Your task to perform on an android device: turn off priority inbox in the gmail app Image 0: 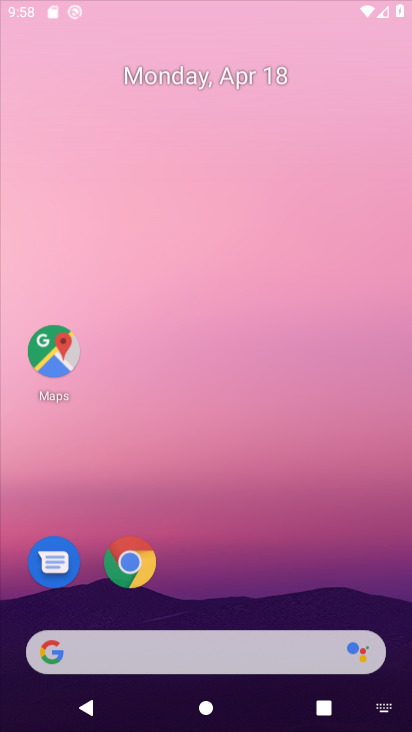
Step 0: click (279, 137)
Your task to perform on an android device: turn off priority inbox in the gmail app Image 1: 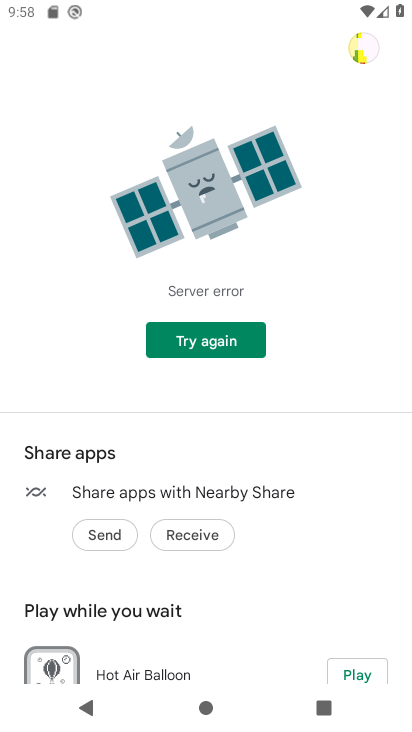
Step 1: drag from (212, 546) to (293, 220)
Your task to perform on an android device: turn off priority inbox in the gmail app Image 2: 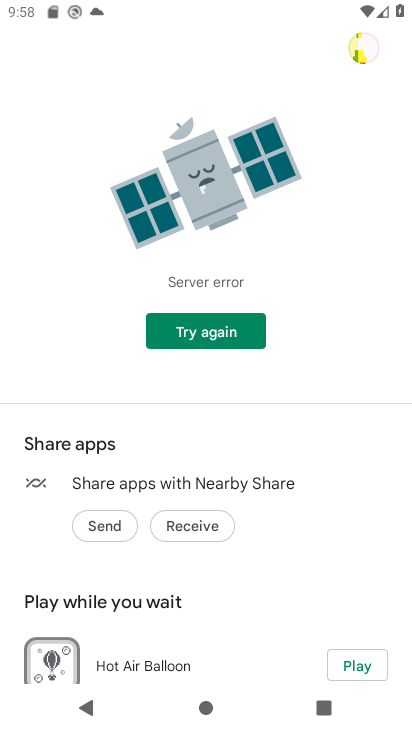
Step 2: press home button
Your task to perform on an android device: turn off priority inbox in the gmail app Image 3: 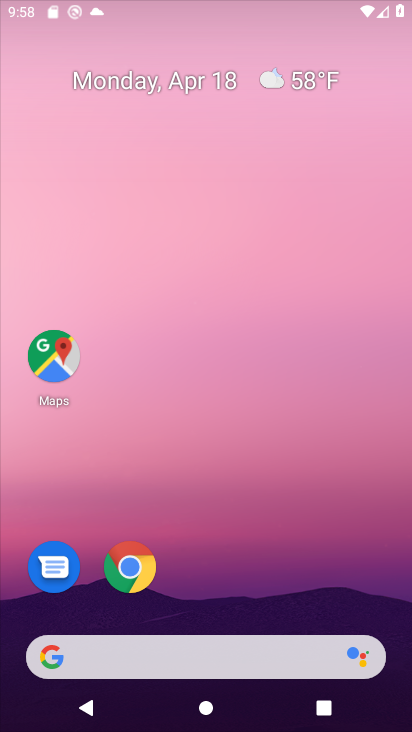
Step 3: drag from (266, 354) to (343, 125)
Your task to perform on an android device: turn off priority inbox in the gmail app Image 4: 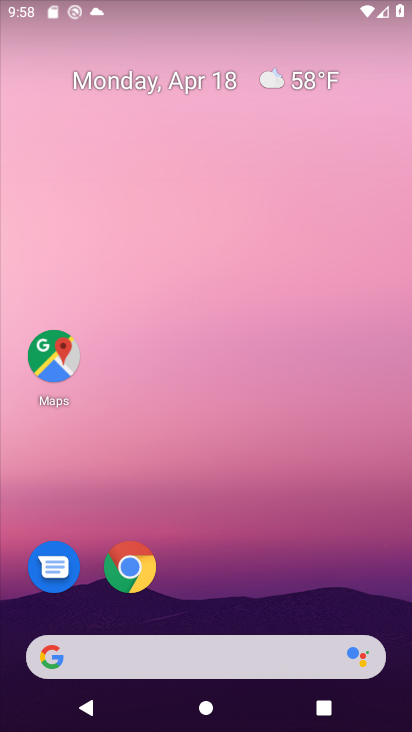
Step 4: drag from (192, 604) to (272, 124)
Your task to perform on an android device: turn off priority inbox in the gmail app Image 5: 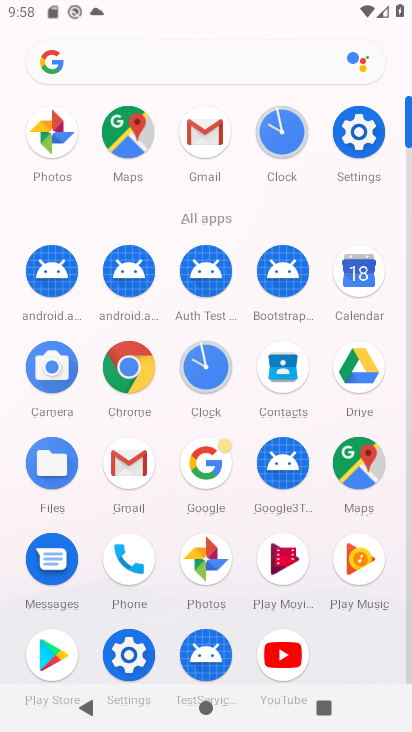
Step 5: click (135, 453)
Your task to perform on an android device: turn off priority inbox in the gmail app Image 6: 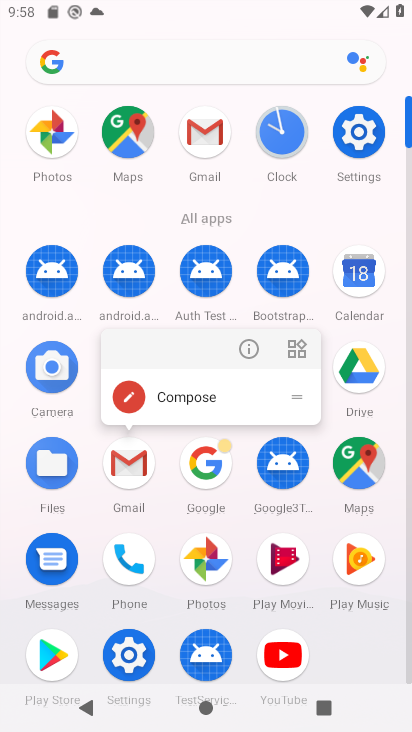
Step 6: click (253, 350)
Your task to perform on an android device: turn off priority inbox in the gmail app Image 7: 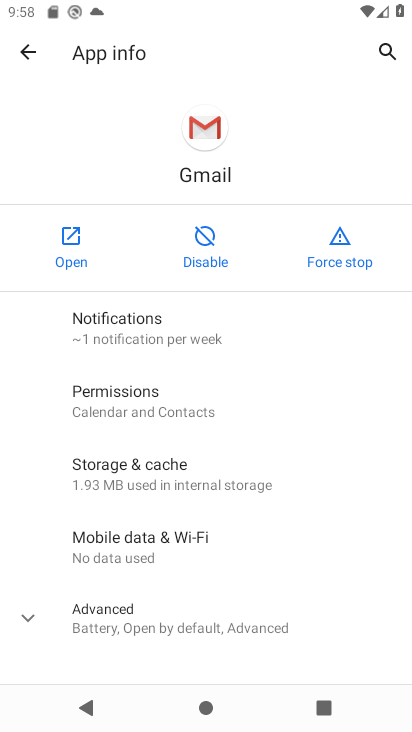
Step 7: click (80, 237)
Your task to perform on an android device: turn off priority inbox in the gmail app Image 8: 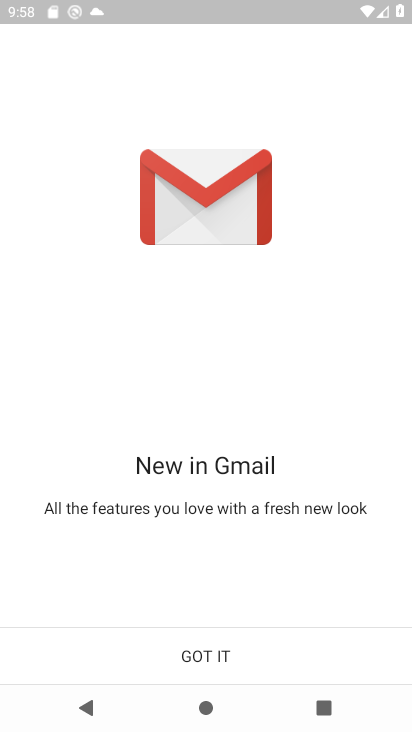
Step 8: click (193, 661)
Your task to perform on an android device: turn off priority inbox in the gmail app Image 9: 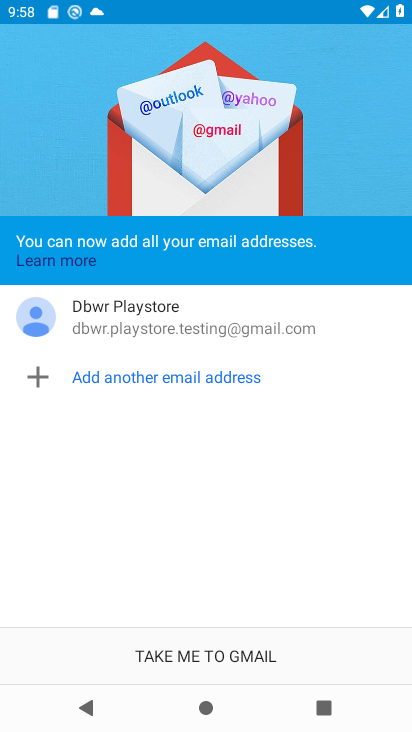
Step 9: click (236, 650)
Your task to perform on an android device: turn off priority inbox in the gmail app Image 10: 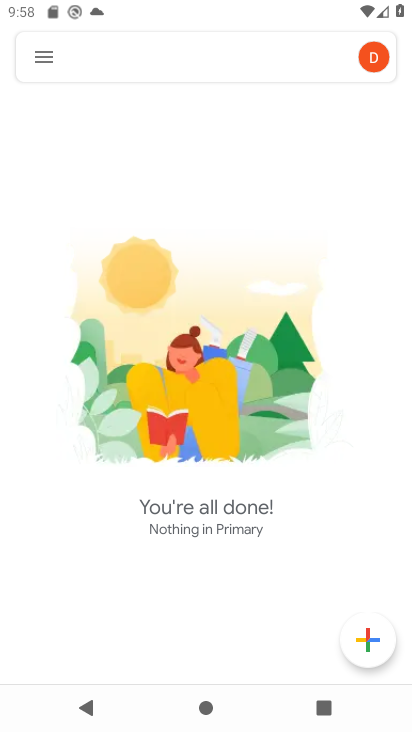
Step 10: click (40, 48)
Your task to perform on an android device: turn off priority inbox in the gmail app Image 11: 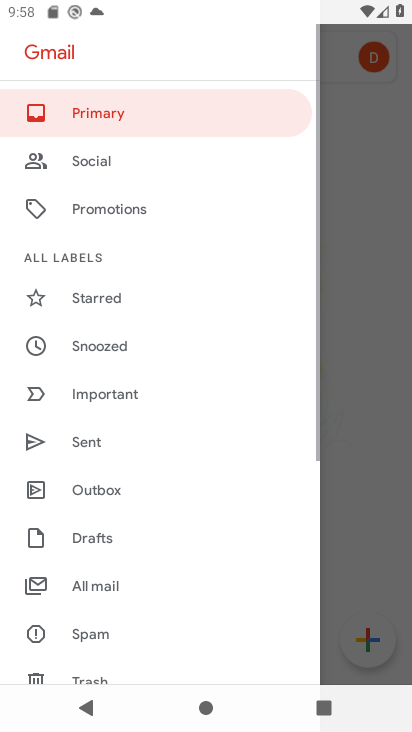
Step 11: drag from (149, 505) to (239, 182)
Your task to perform on an android device: turn off priority inbox in the gmail app Image 12: 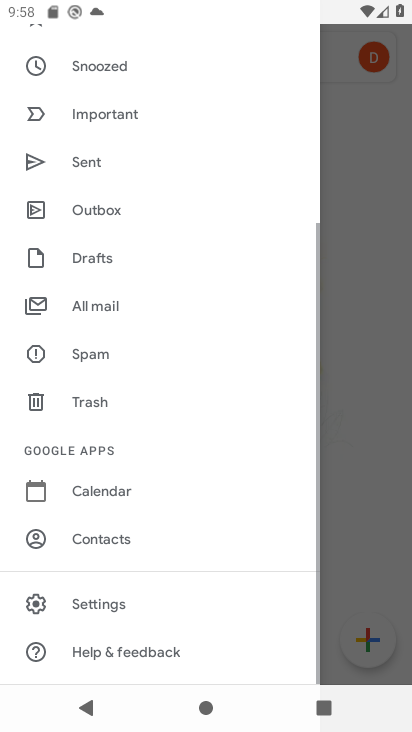
Step 12: click (101, 605)
Your task to perform on an android device: turn off priority inbox in the gmail app Image 13: 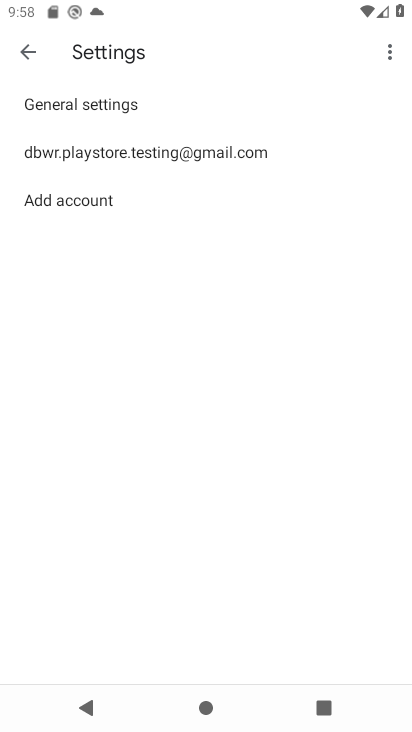
Step 13: click (160, 154)
Your task to perform on an android device: turn off priority inbox in the gmail app Image 14: 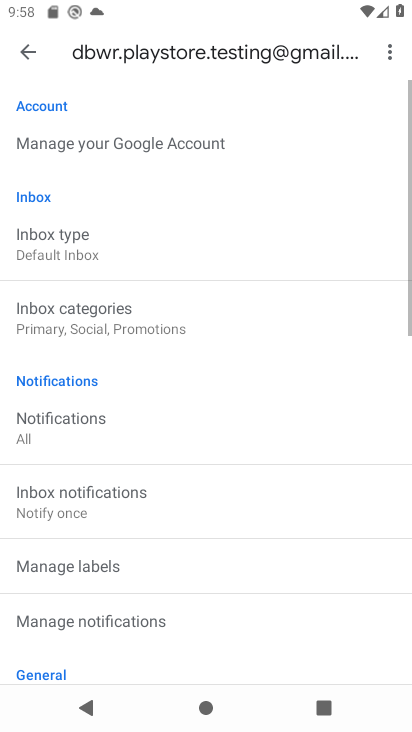
Step 14: drag from (185, 422) to (295, 144)
Your task to perform on an android device: turn off priority inbox in the gmail app Image 15: 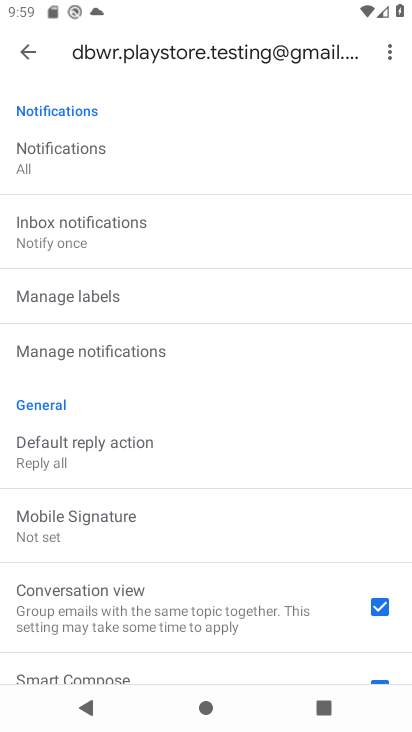
Step 15: drag from (160, 600) to (284, 189)
Your task to perform on an android device: turn off priority inbox in the gmail app Image 16: 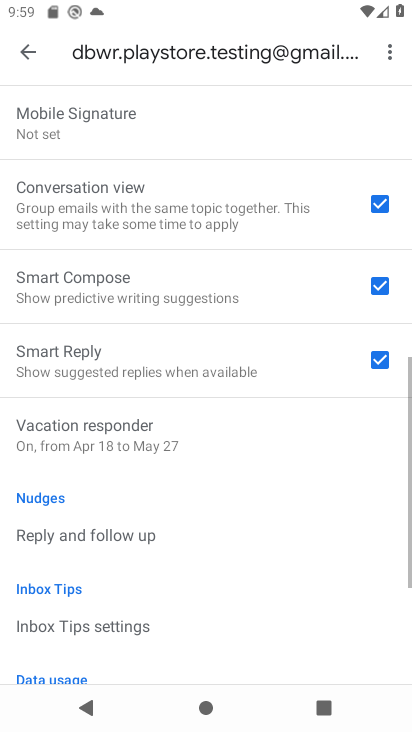
Step 16: drag from (285, 172) to (216, 728)
Your task to perform on an android device: turn off priority inbox in the gmail app Image 17: 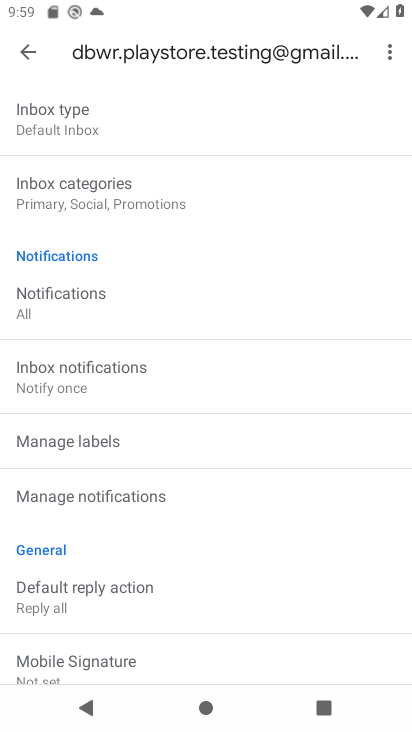
Step 17: click (104, 125)
Your task to perform on an android device: turn off priority inbox in the gmail app Image 18: 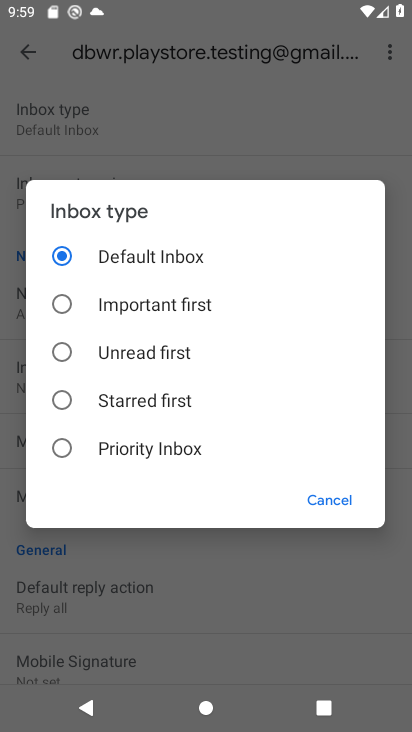
Step 18: click (121, 445)
Your task to perform on an android device: turn off priority inbox in the gmail app Image 19: 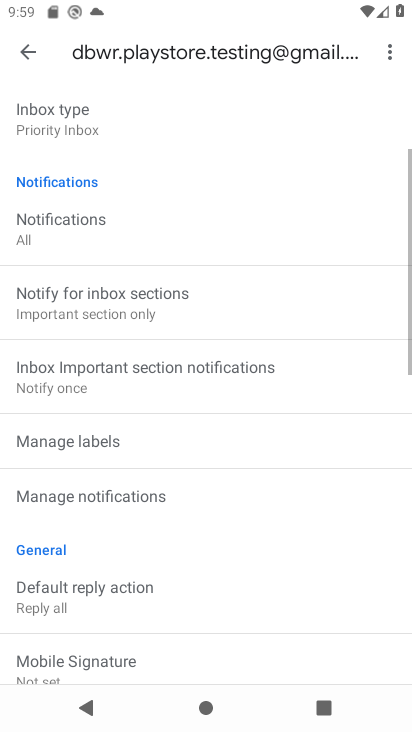
Step 19: click (80, 136)
Your task to perform on an android device: turn off priority inbox in the gmail app Image 20: 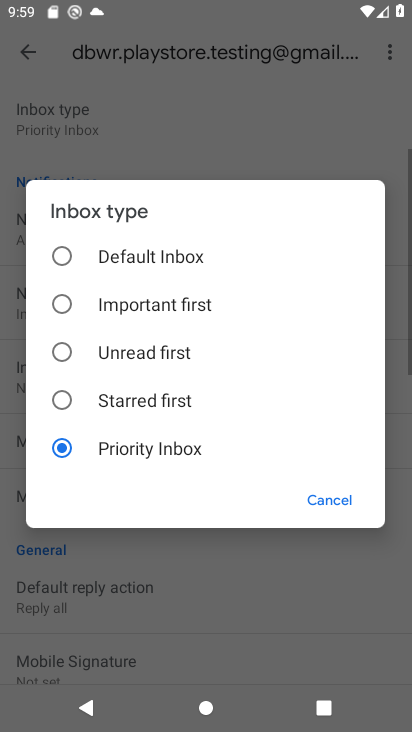
Step 20: click (108, 299)
Your task to perform on an android device: turn off priority inbox in the gmail app Image 21: 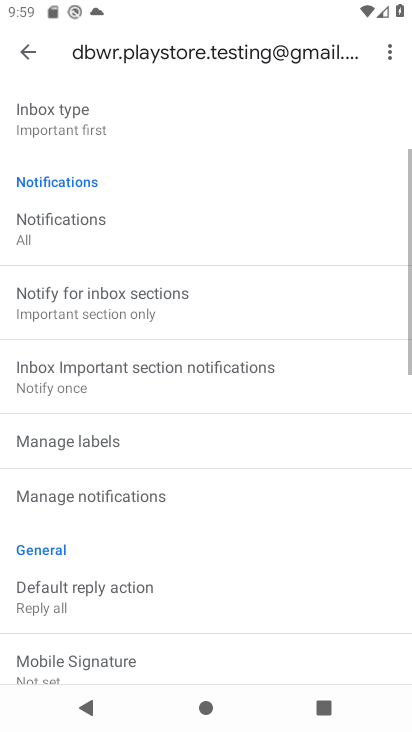
Step 21: task complete